Your task to perform on an android device: turn on the 12-hour format for clock Image 0: 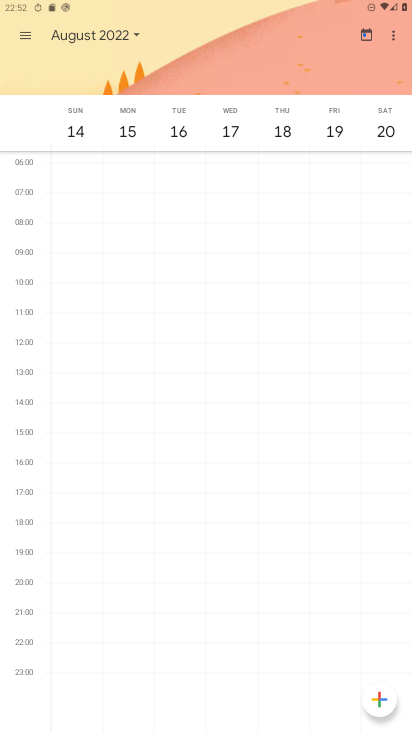
Step 0: press home button
Your task to perform on an android device: turn on the 12-hour format for clock Image 1: 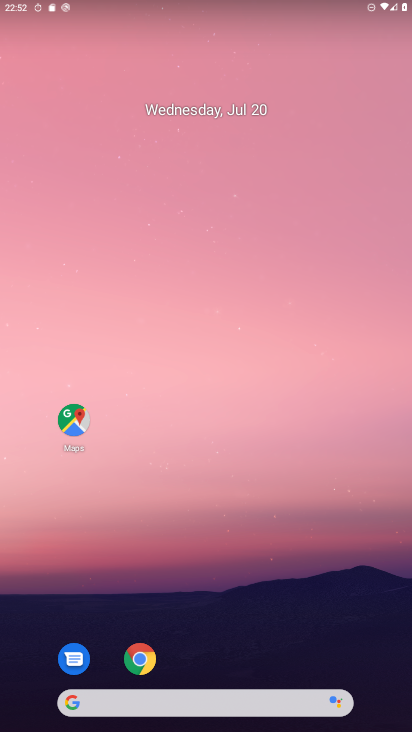
Step 1: drag from (294, 553) to (209, 69)
Your task to perform on an android device: turn on the 12-hour format for clock Image 2: 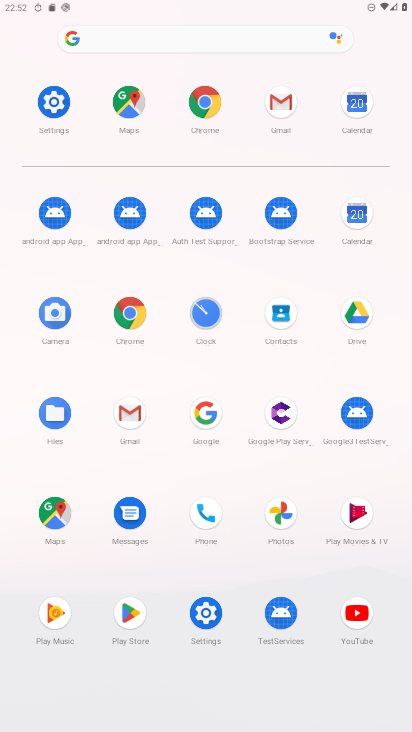
Step 2: click (197, 305)
Your task to perform on an android device: turn on the 12-hour format for clock Image 3: 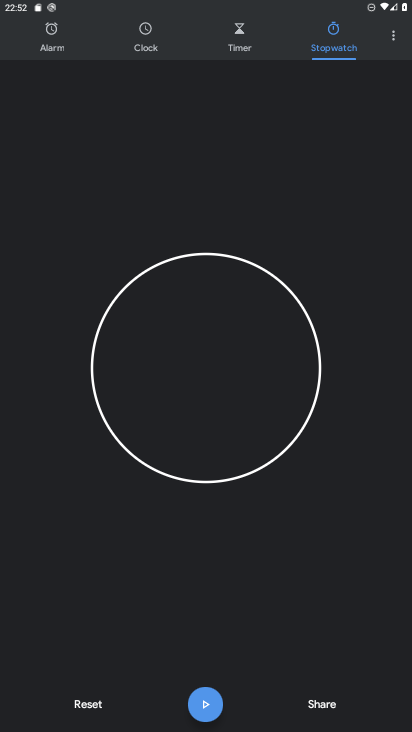
Step 3: click (391, 41)
Your task to perform on an android device: turn on the 12-hour format for clock Image 4: 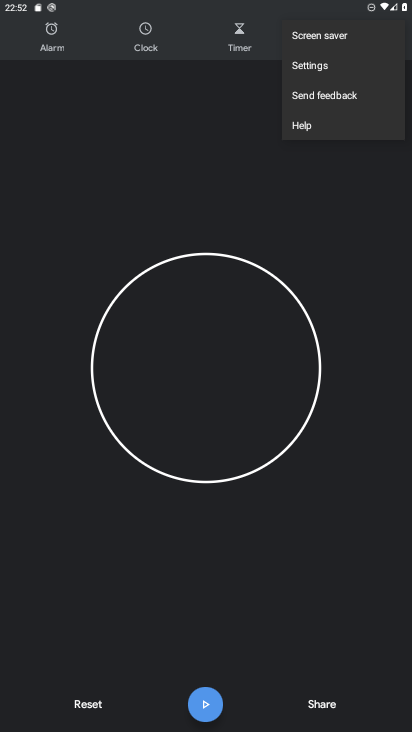
Step 4: click (323, 72)
Your task to perform on an android device: turn on the 12-hour format for clock Image 5: 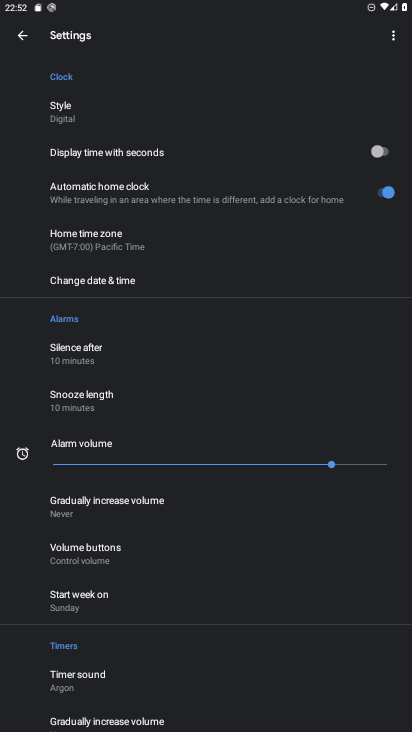
Step 5: click (110, 281)
Your task to perform on an android device: turn on the 12-hour format for clock Image 6: 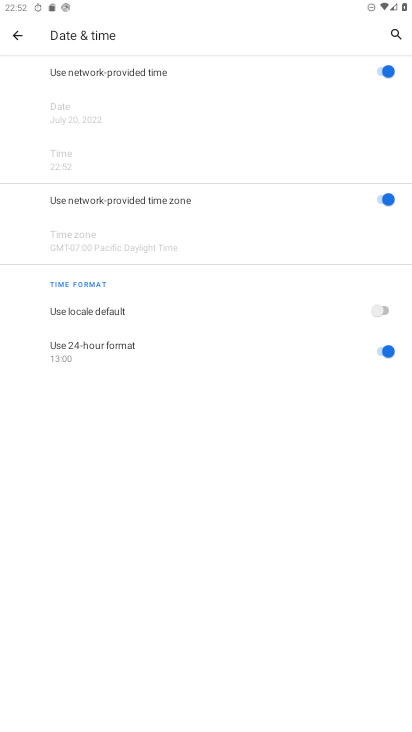
Step 6: click (380, 306)
Your task to perform on an android device: turn on the 12-hour format for clock Image 7: 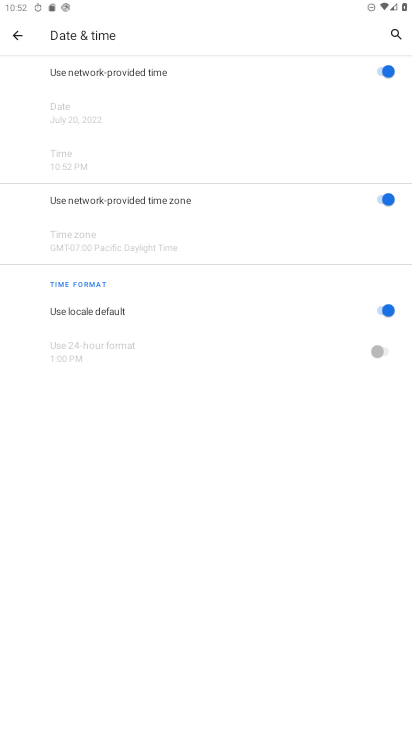
Step 7: task complete